Your task to perform on an android device: Open the calendar and show me this week's events? Image 0: 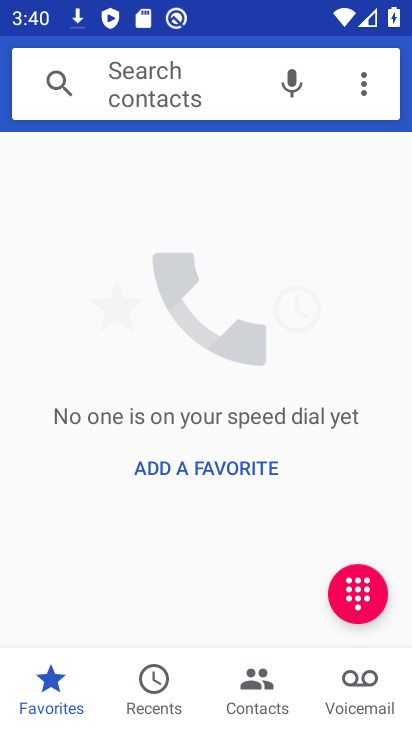
Step 0: press home button
Your task to perform on an android device: Open the calendar and show me this week's events? Image 1: 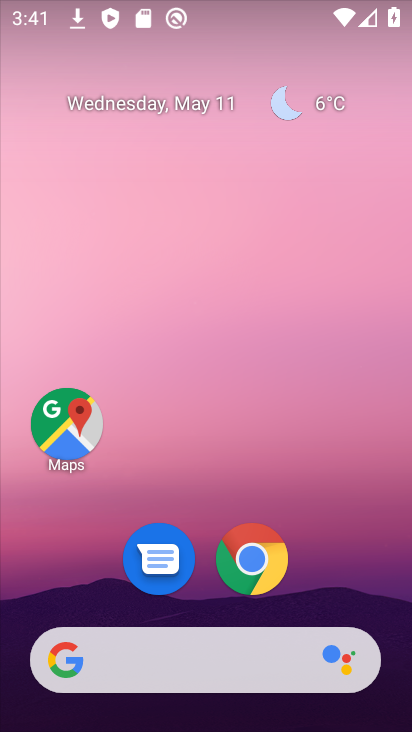
Step 1: drag from (342, 570) to (292, 151)
Your task to perform on an android device: Open the calendar and show me this week's events? Image 2: 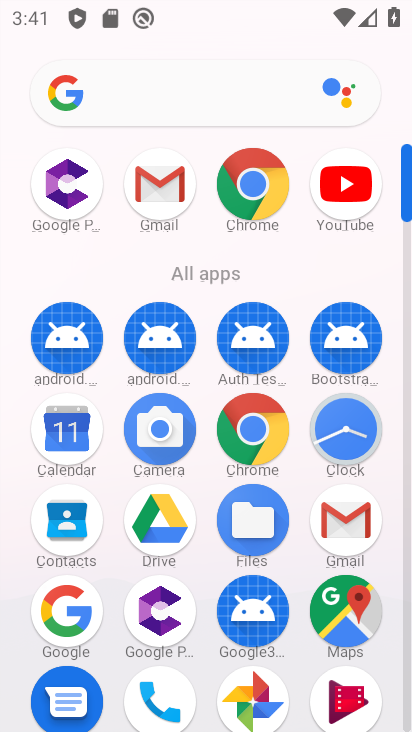
Step 2: click (63, 455)
Your task to perform on an android device: Open the calendar and show me this week's events? Image 3: 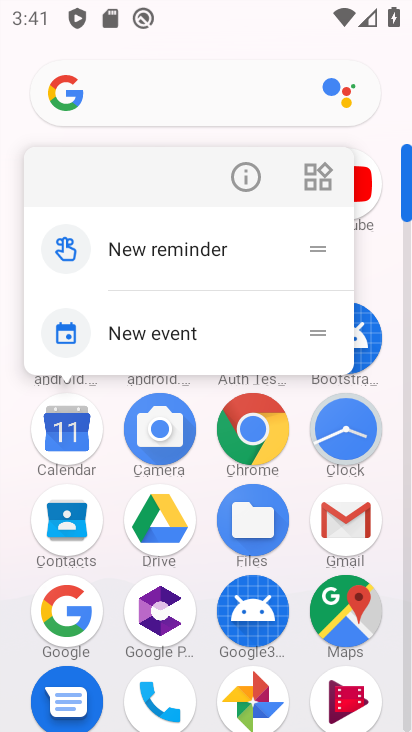
Step 3: click (73, 446)
Your task to perform on an android device: Open the calendar and show me this week's events? Image 4: 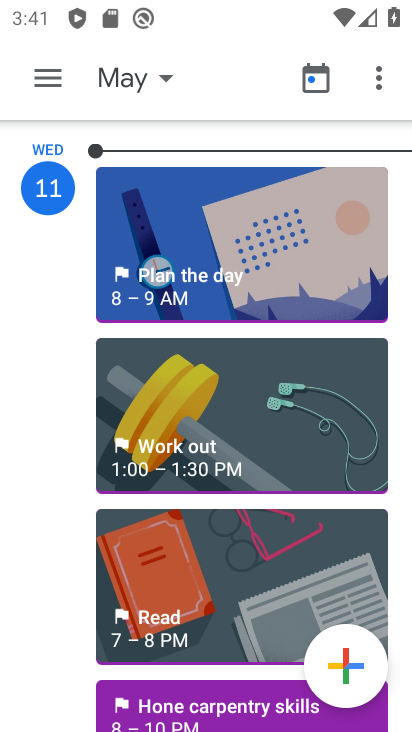
Step 4: click (154, 70)
Your task to perform on an android device: Open the calendar and show me this week's events? Image 5: 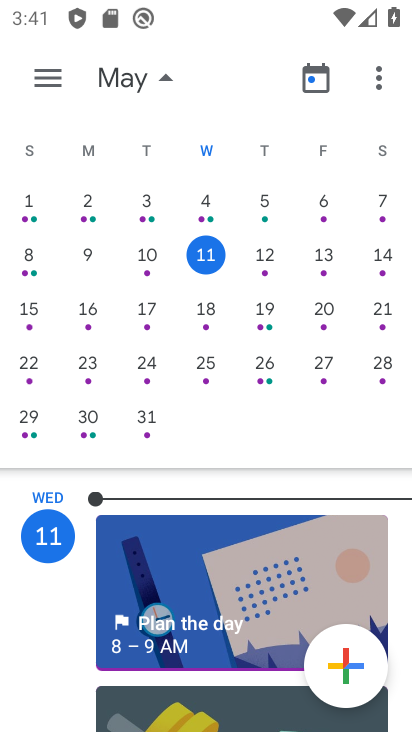
Step 5: click (272, 266)
Your task to perform on an android device: Open the calendar and show me this week's events? Image 6: 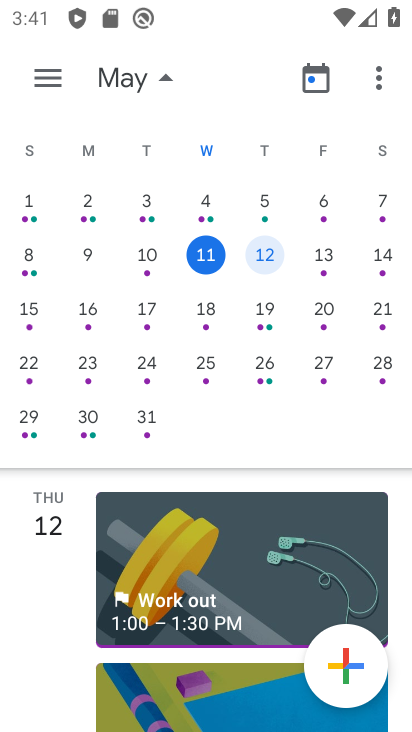
Step 6: task complete